Your task to perform on an android device: Open Maps and search for coffee Image 0: 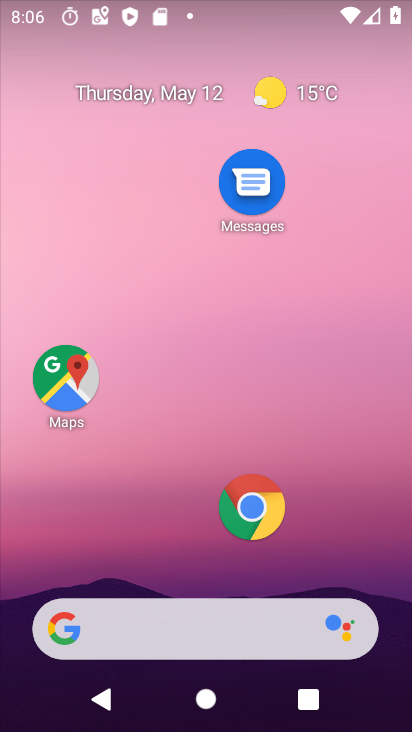
Step 0: click (49, 379)
Your task to perform on an android device: Open Maps and search for coffee Image 1: 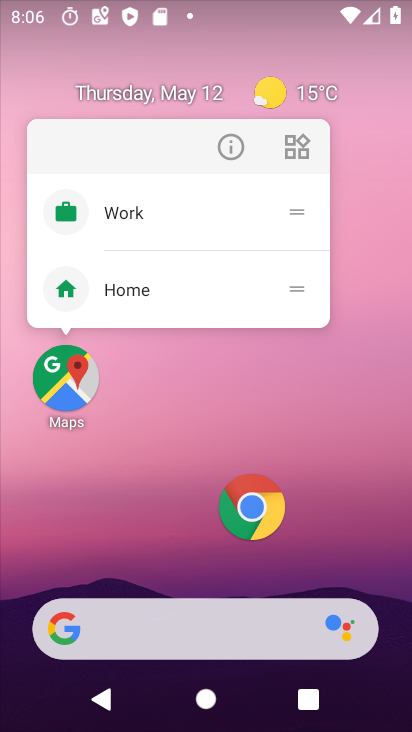
Step 1: click (57, 374)
Your task to perform on an android device: Open Maps and search for coffee Image 2: 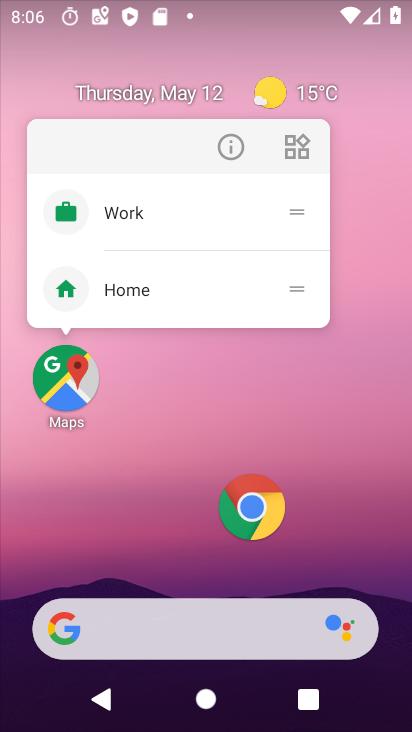
Step 2: click (57, 374)
Your task to perform on an android device: Open Maps and search for coffee Image 3: 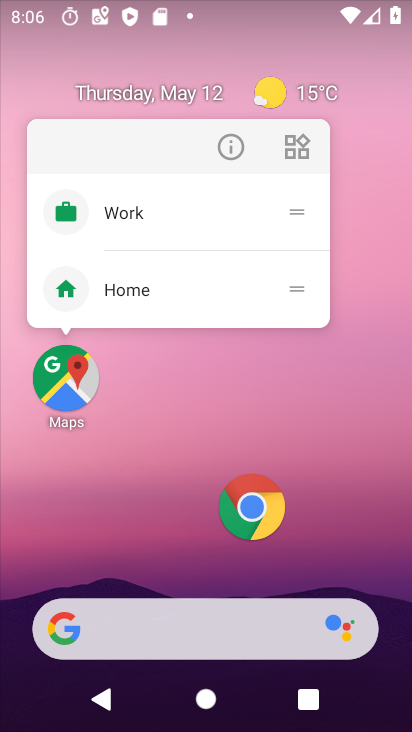
Step 3: click (57, 374)
Your task to perform on an android device: Open Maps and search for coffee Image 4: 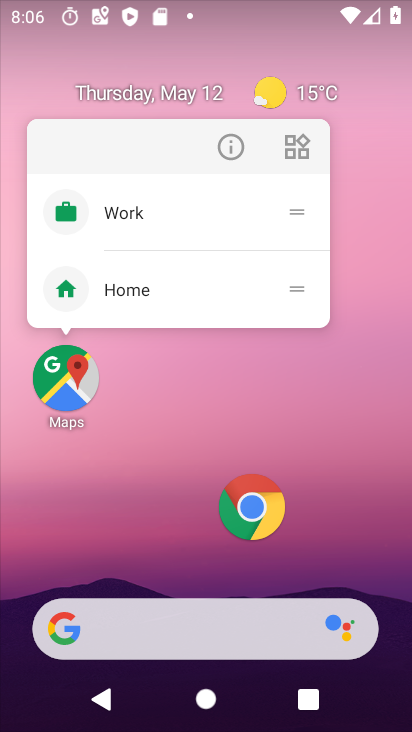
Step 4: click (70, 389)
Your task to perform on an android device: Open Maps and search for coffee Image 5: 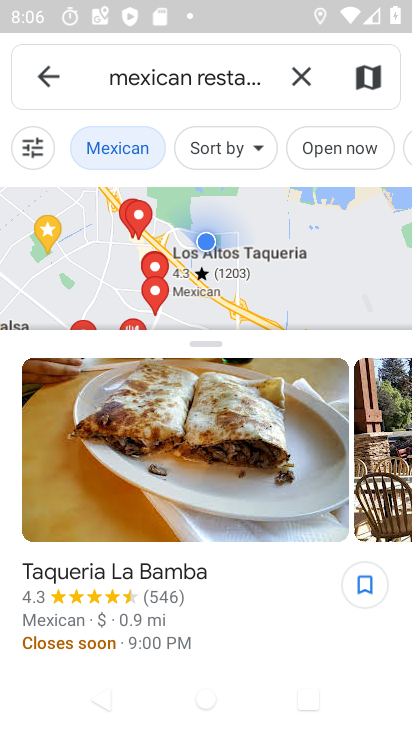
Step 5: click (300, 77)
Your task to perform on an android device: Open Maps and search for coffee Image 6: 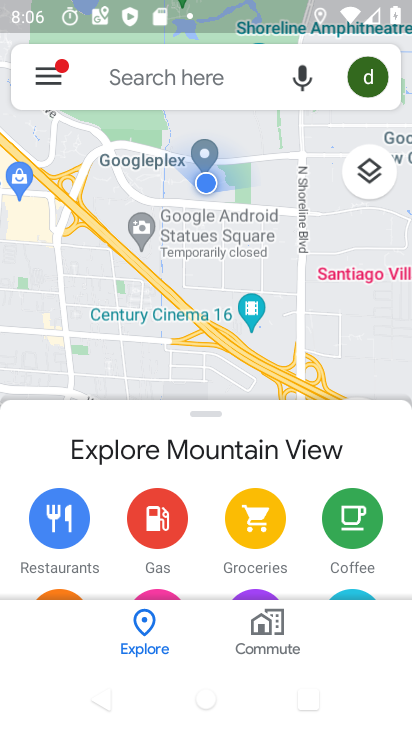
Step 6: click (115, 84)
Your task to perform on an android device: Open Maps and search for coffee Image 7: 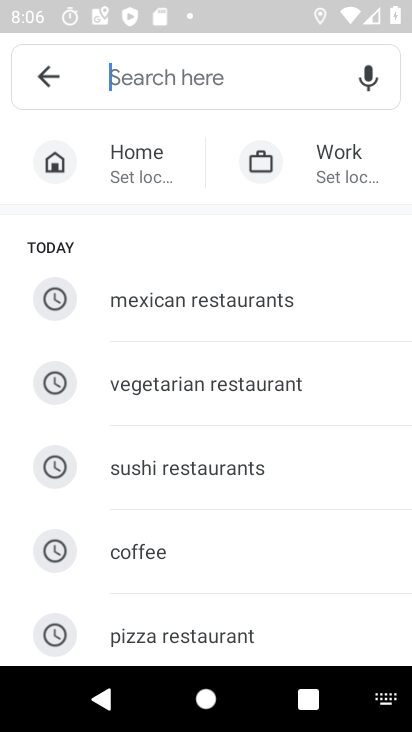
Step 7: type "coffee"
Your task to perform on an android device: Open Maps and search for coffee Image 8: 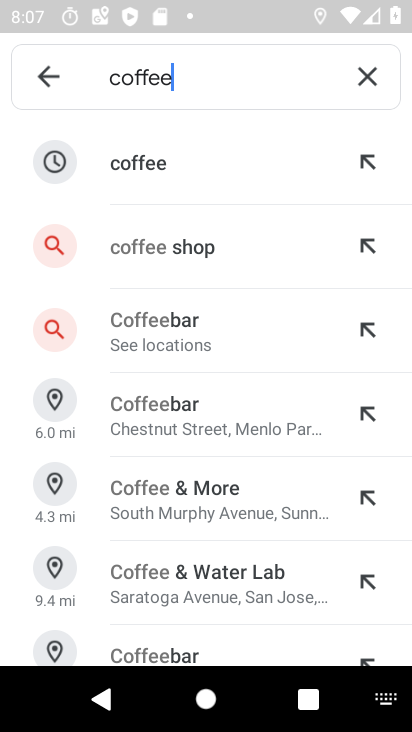
Step 8: click (117, 166)
Your task to perform on an android device: Open Maps and search for coffee Image 9: 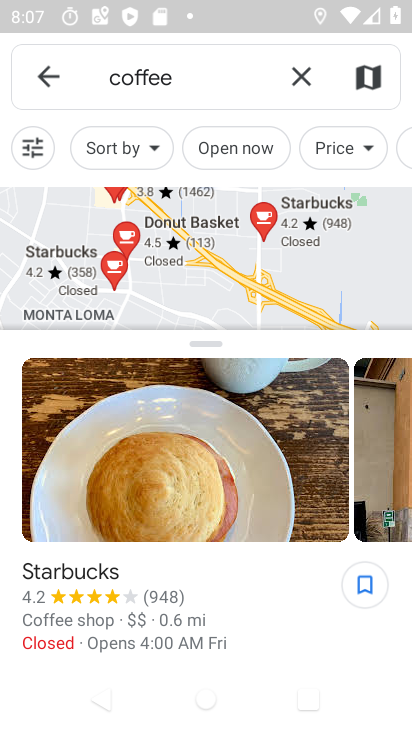
Step 9: task complete